Your task to perform on an android device: see creations saved in the google photos Image 0: 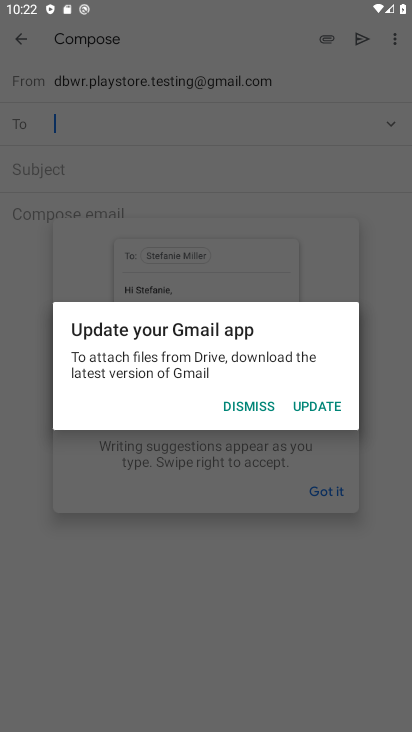
Step 0: press home button
Your task to perform on an android device: see creations saved in the google photos Image 1: 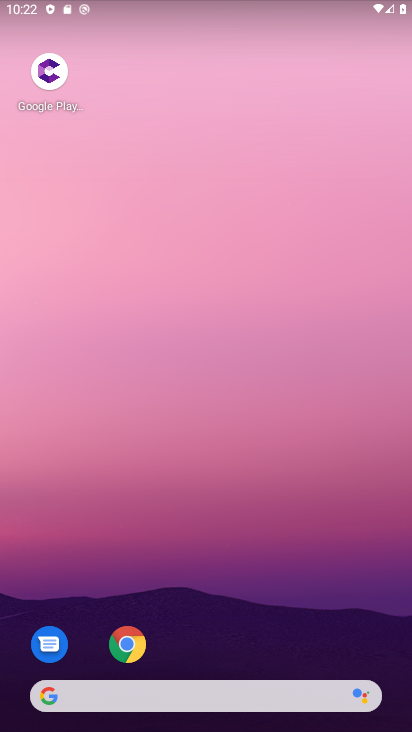
Step 1: drag from (207, 656) to (408, 154)
Your task to perform on an android device: see creations saved in the google photos Image 2: 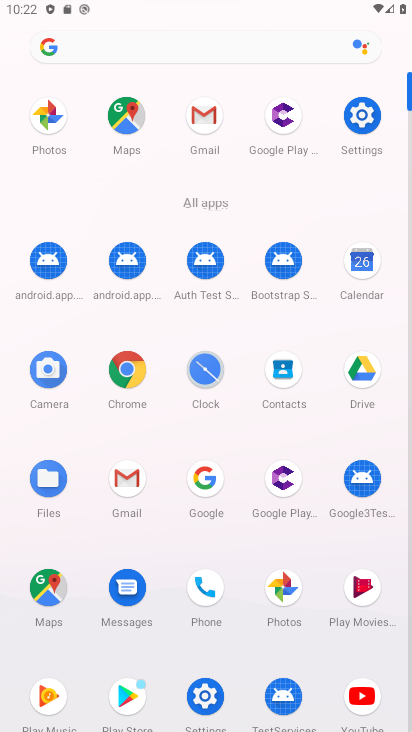
Step 2: click (283, 594)
Your task to perform on an android device: see creations saved in the google photos Image 3: 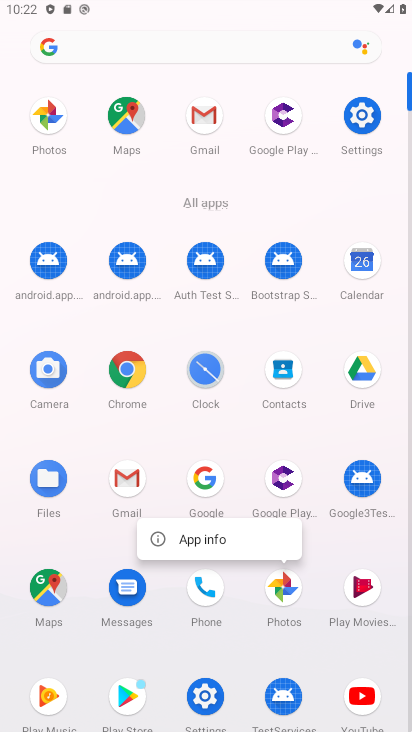
Step 3: click (283, 594)
Your task to perform on an android device: see creations saved in the google photos Image 4: 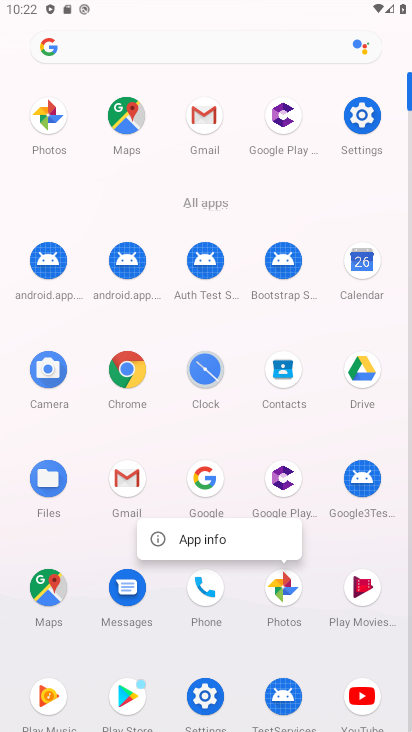
Step 4: click (283, 594)
Your task to perform on an android device: see creations saved in the google photos Image 5: 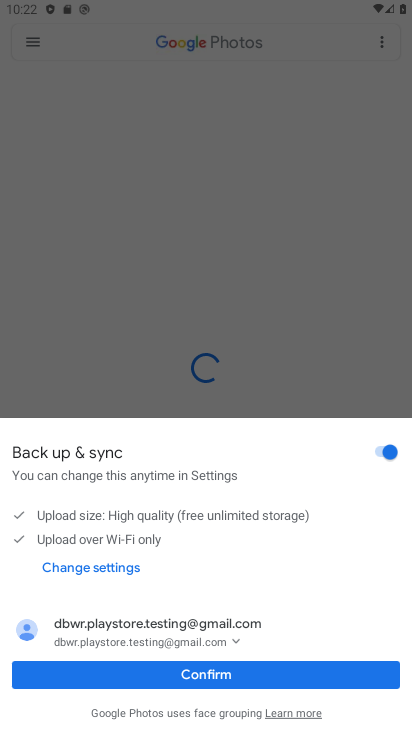
Step 5: click (219, 681)
Your task to perform on an android device: see creations saved in the google photos Image 6: 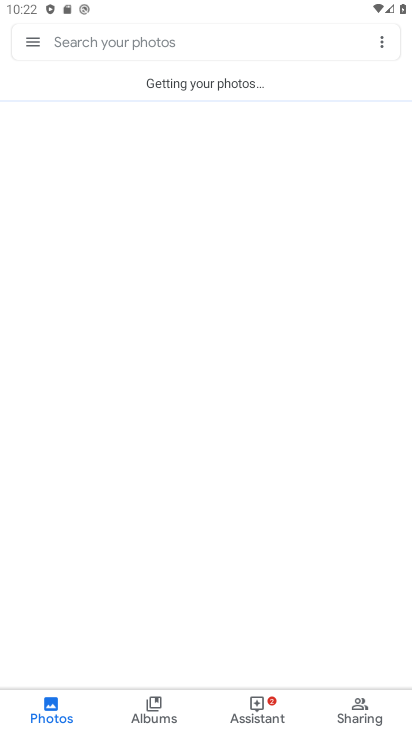
Step 6: click (156, 43)
Your task to perform on an android device: see creations saved in the google photos Image 7: 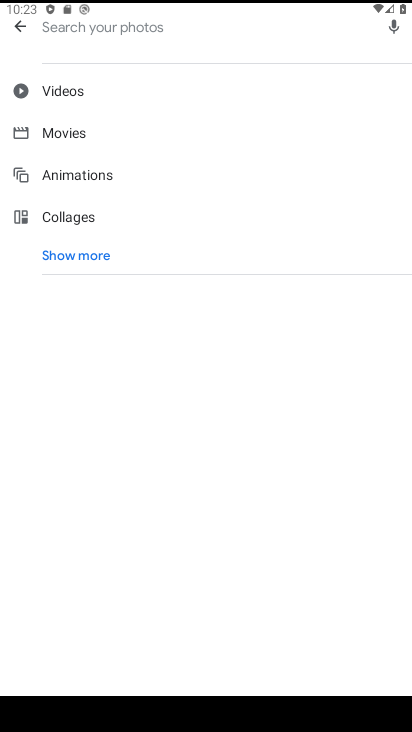
Step 7: click (88, 257)
Your task to perform on an android device: see creations saved in the google photos Image 8: 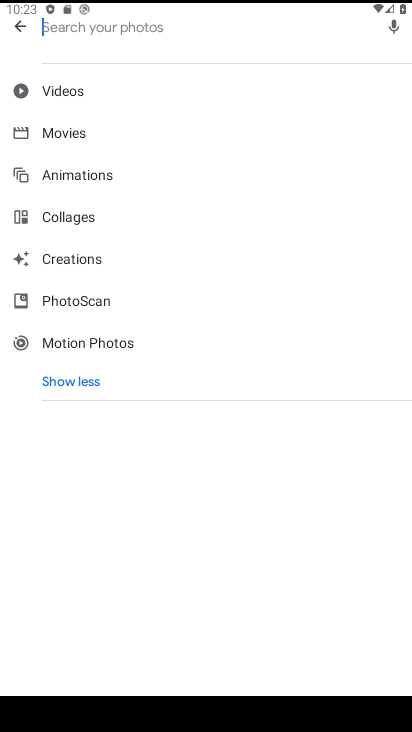
Step 8: click (91, 262)
Your task to perform on an android device: see creations saved in the google photos Image 9: 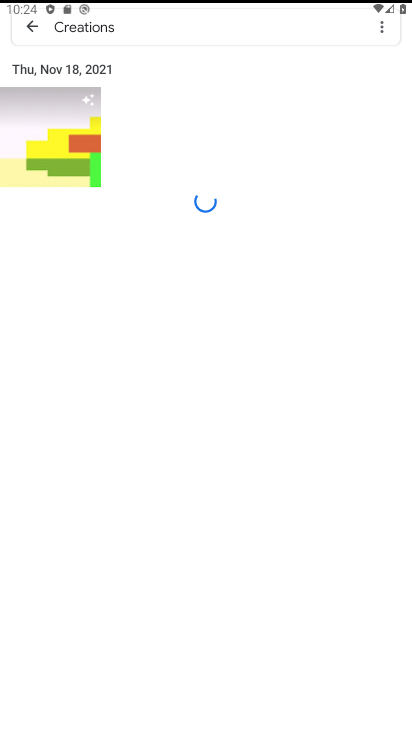
Step 9: task complete